Your task to perform on an android device: Open Youtube and go to the subscriptions tab Image 0: 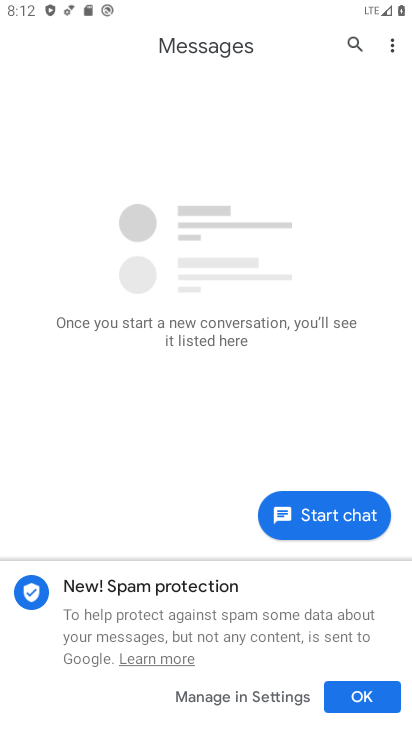
Step 0: press home button
Your task to perform on an android device: Open Youtube and go to the subscriptions tab Image 1: 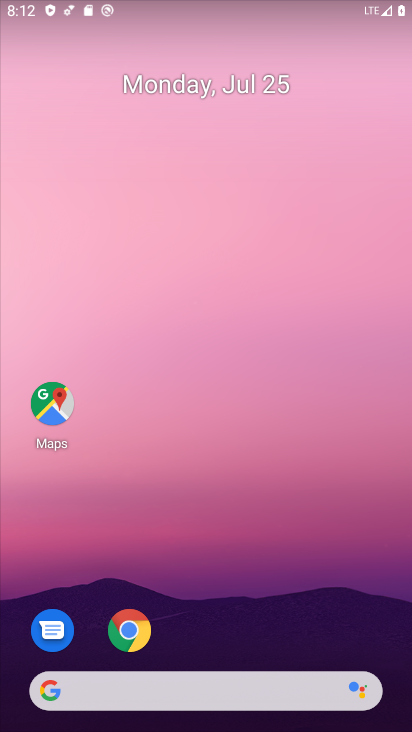
Step 1: drag from (32, 707) to (112, 354)
Your task to perform on an android device: Open Youtube and go to the subscriptions tab Image 2: 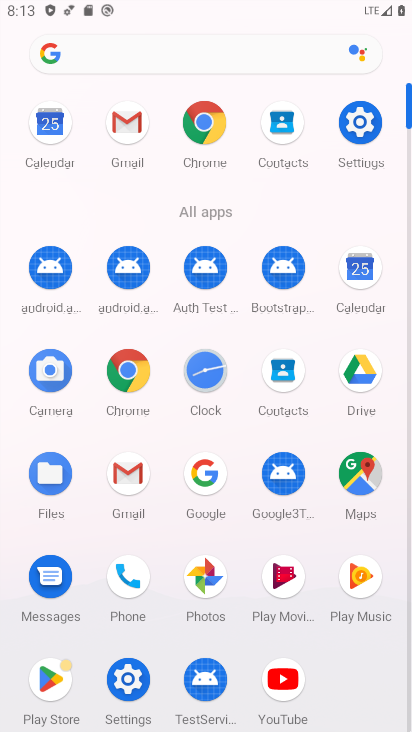
Step 2: click (280, 686)
Your task to perform on an android device: Open Youtube and go to the subscriptions tab Image 3: 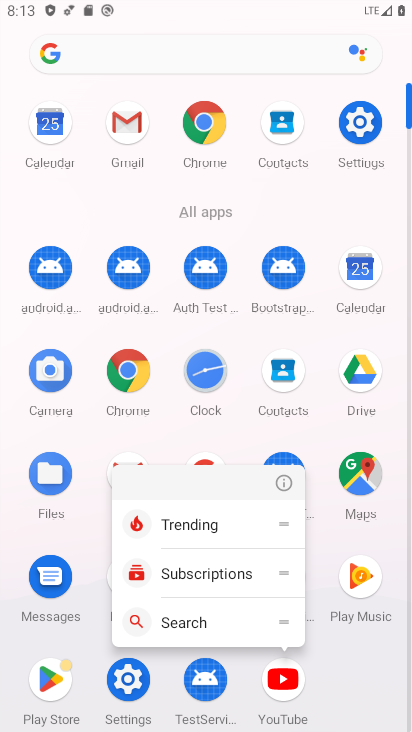
Step 3: click (282, 680)
Your task to perform on an android device: Open Youtube and go to the subscriptions tab Image 4: 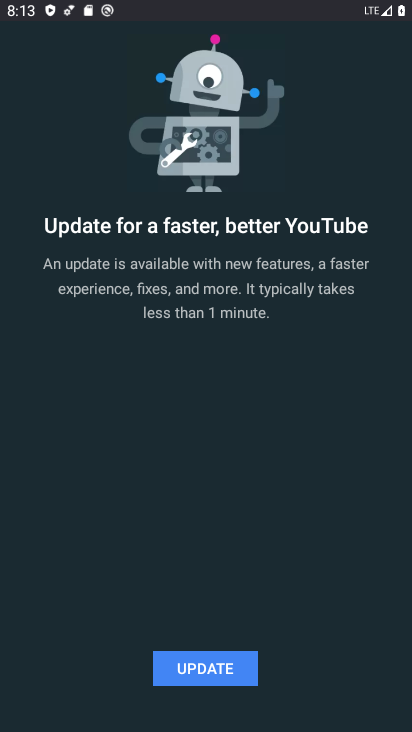
Step 4: click (234, 666)
Your task to perform on an android device: Open Youtube and go to the subscriptions tab Image 5: 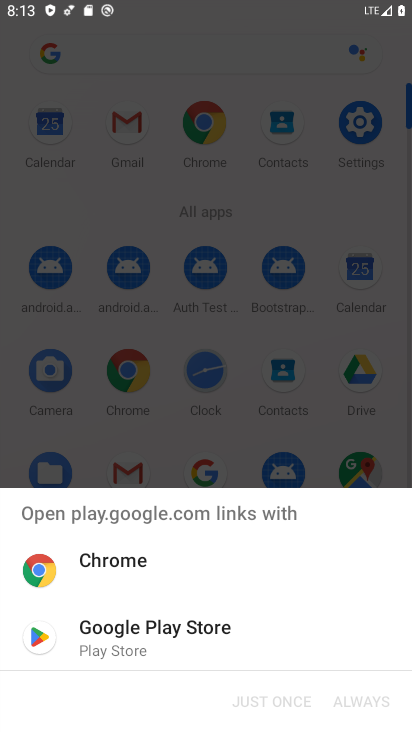
Step 5: click (122, 652)
Your task to perform on an android device: Open Youtube and go to the subscriptions tab Image 6: 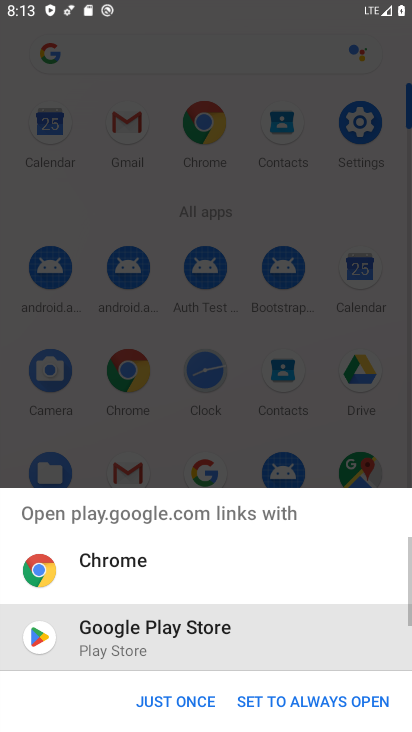
Step 6: click (183, 706)
Your task to perform on an android device: Open Youtube and go to the subscriptions tab Image 7: 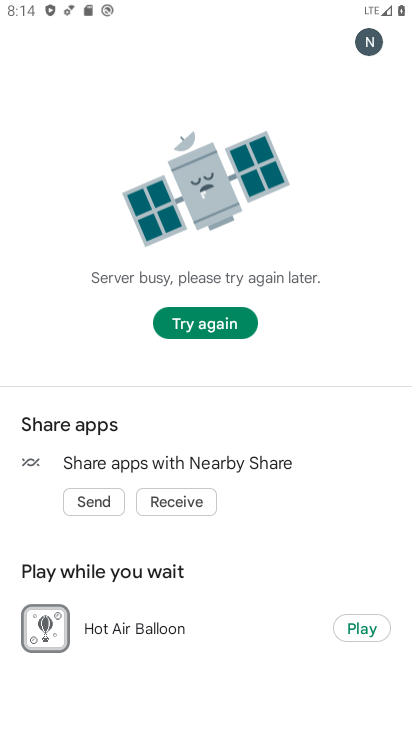
Step 7: task complete